Your task to perform on an android device: Show me popular games on the Play Store Image 0: 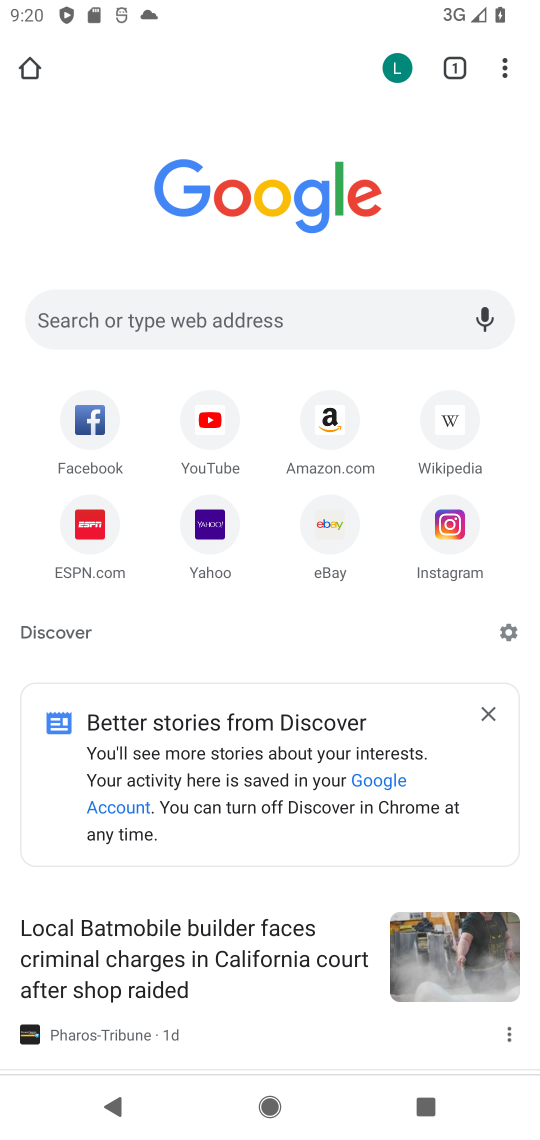
Step 0: drag from (164, 919) to (361, 345)
Your task to perform on an android device: Show me popular games on the Play Store Image 1: 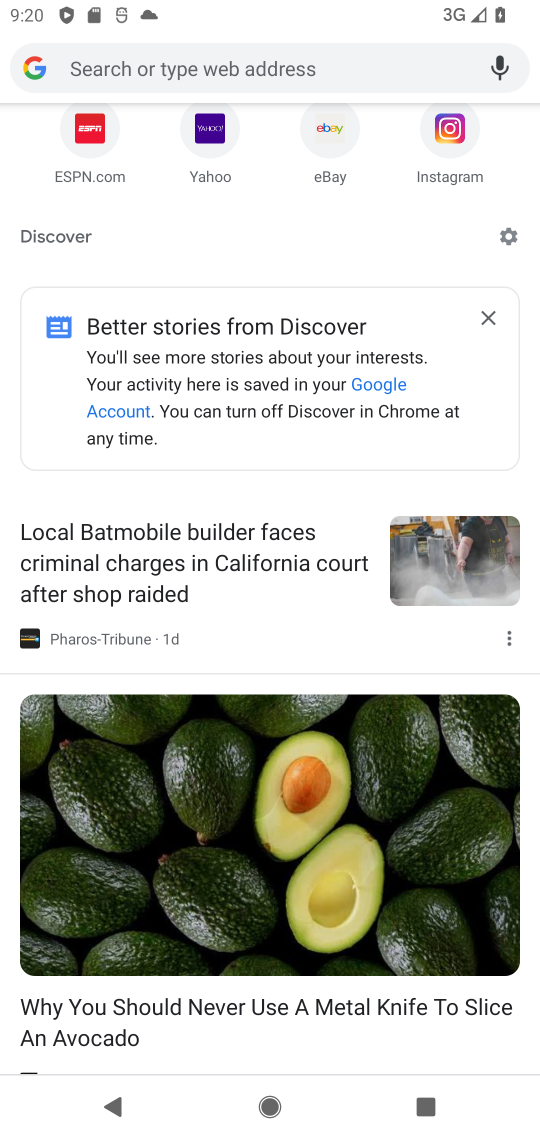
Step 1: press home button
Your task to perform on an android device: Show me popular games on the Play Store Image 2: 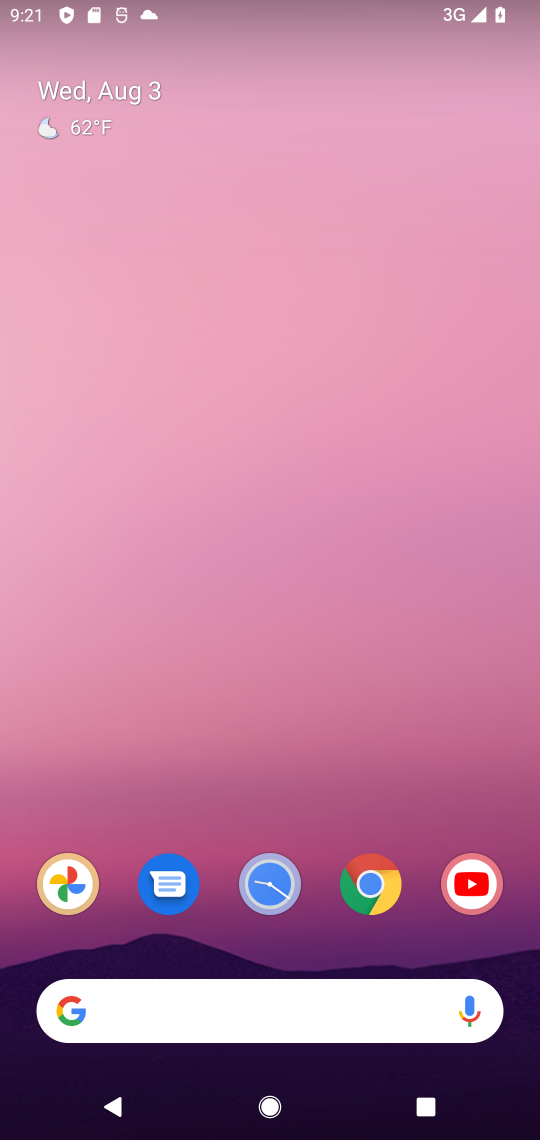
Step 2: drag from (202, 839) to (295, 187)
Your task to perform on an android device: Show me popular games on the Play Store Image 3: 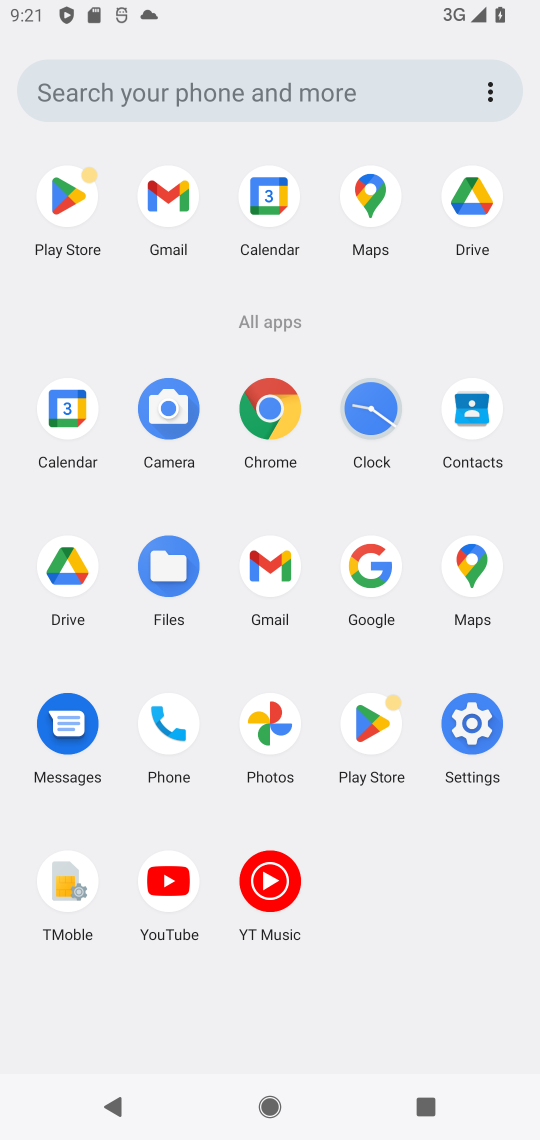
Step 3: click (374, 728)
Your task to perform on an android device: Show me popular games on the Play Store Image 4: 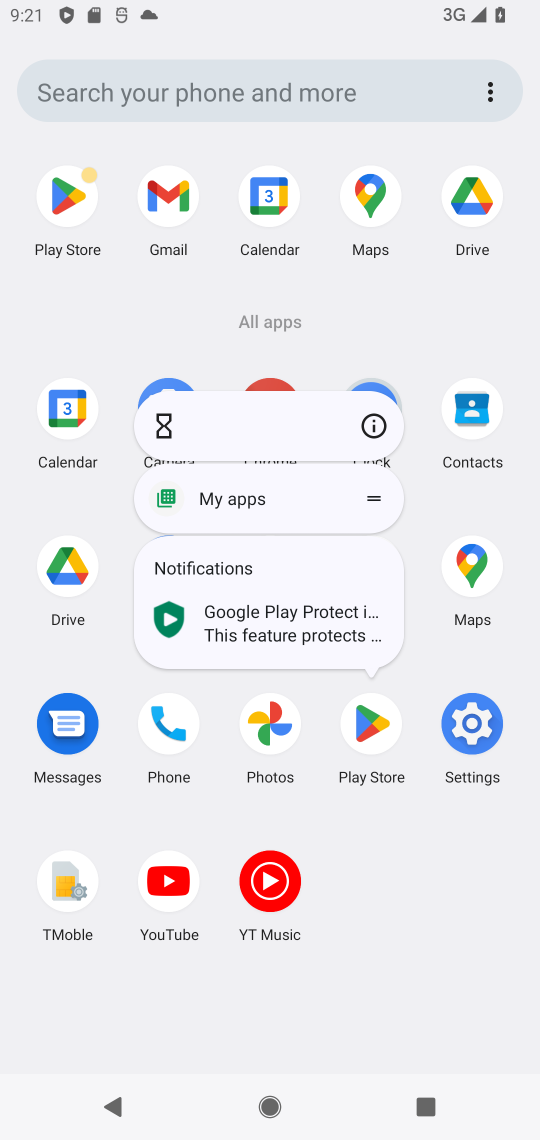
Step 4: click (366, 422)
Your task to perform on an android device: Show me popular games on the Play Store Image 5: 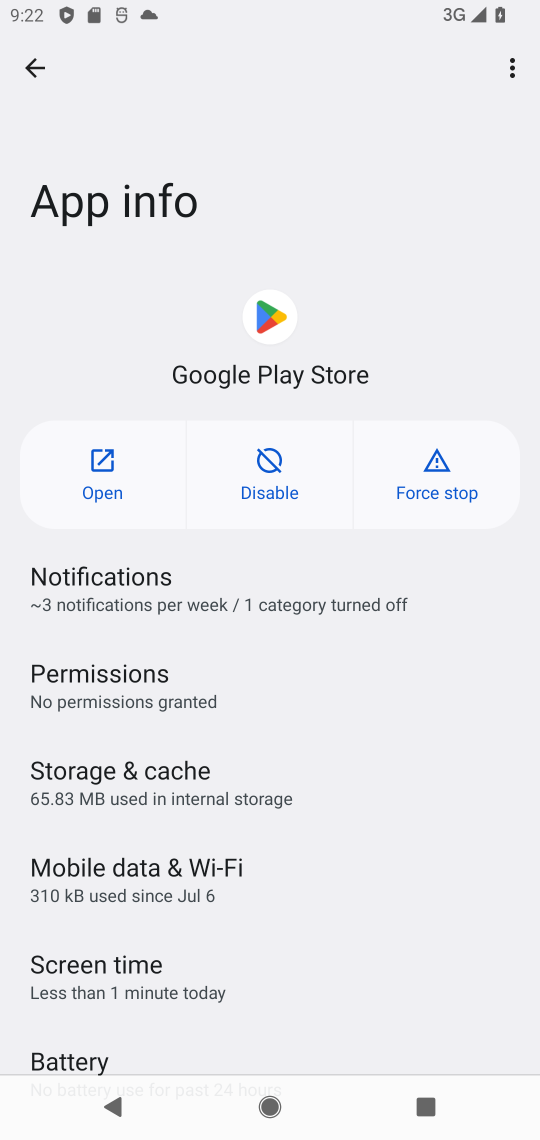
Step 5: click (130, 456)
Your task to perform on an android device: Show me popular games on the Play Store Image 6: 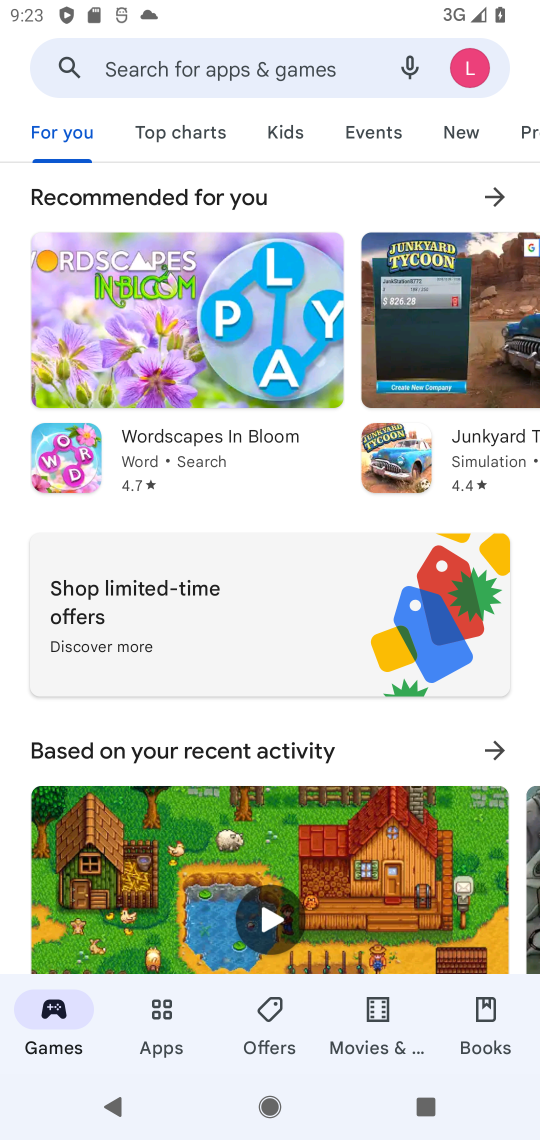
Step 6: task complete